Your task to perform on an android device: check android version Image 0: 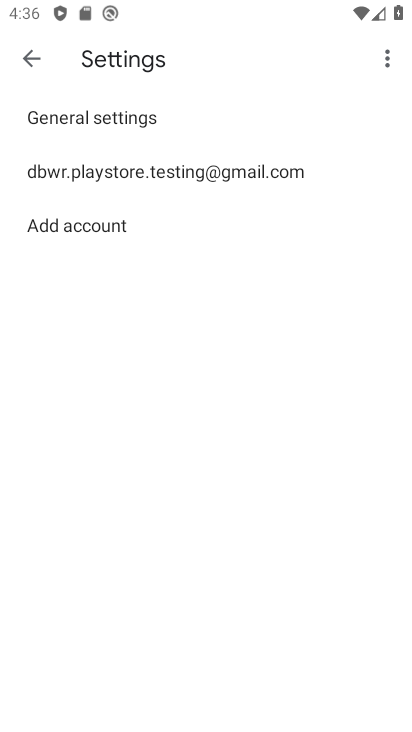
Step 0: press home button
Your task to perform on an android device: check android version Image 1: 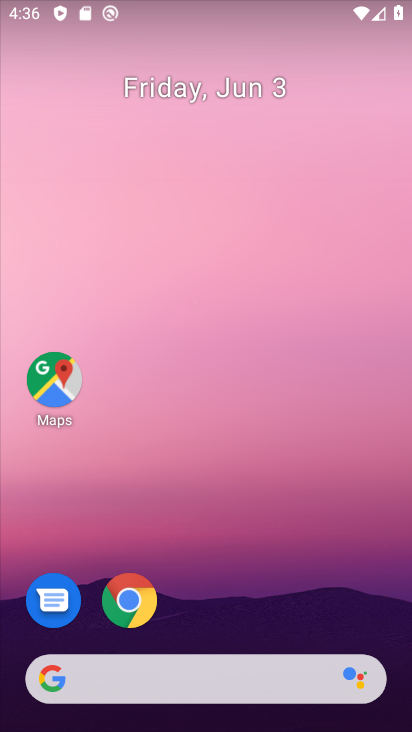
Step 1: drag from (210, 623) to (294, 173)
Your task to perform on an android device: check android version Image 2: 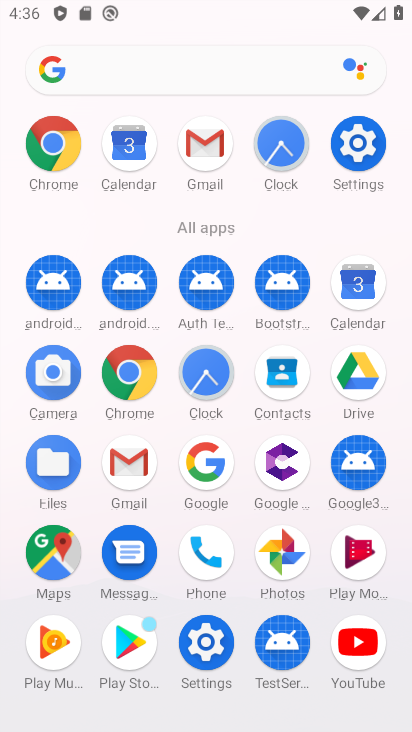
Step 2: click (215, 633)
Your task to perform on an android device: check android version Image 3: 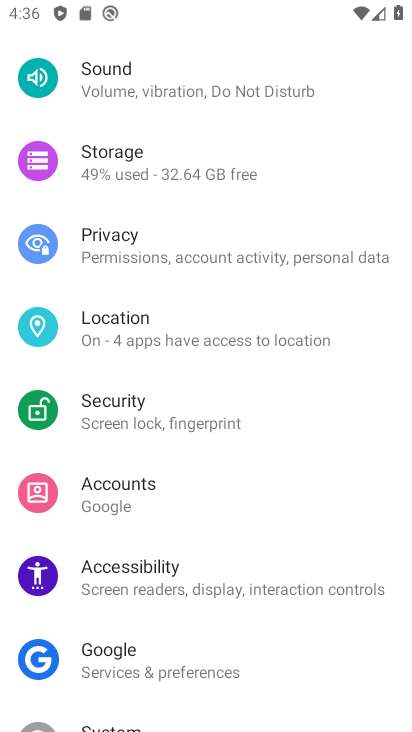
Step 3: drag from (183, 506) to (191, 241)
Your task to perform on an android device: check android version Image 4: 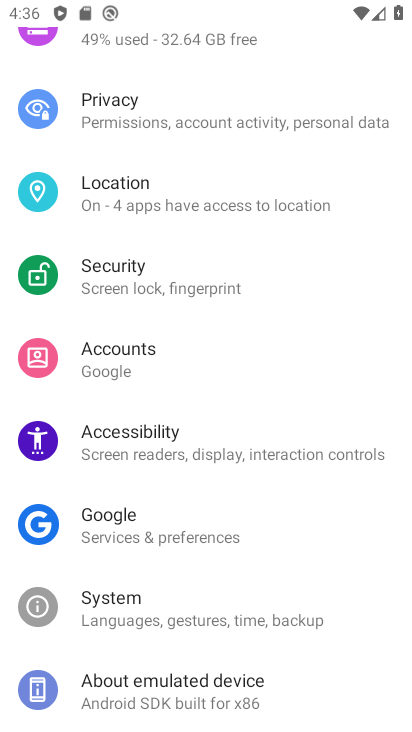
Step 4: click (149, 699)
Your task to perform on an android device: check android version Image 5: 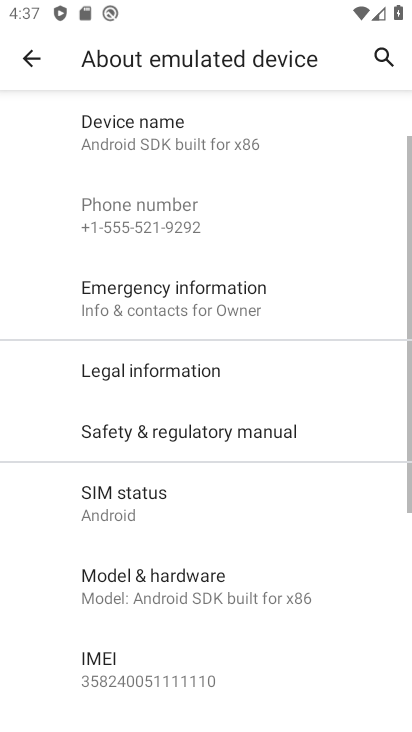
Step 5: drag from (159, 508) to (182, 351)
Your task to perform on an android device: check android version Image 6: 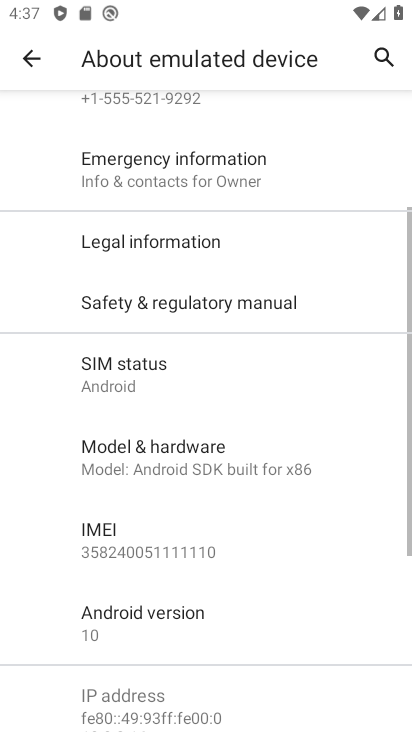
Step 6: click (140, 635)
Your task to perform on an android device: check android version Image 7: 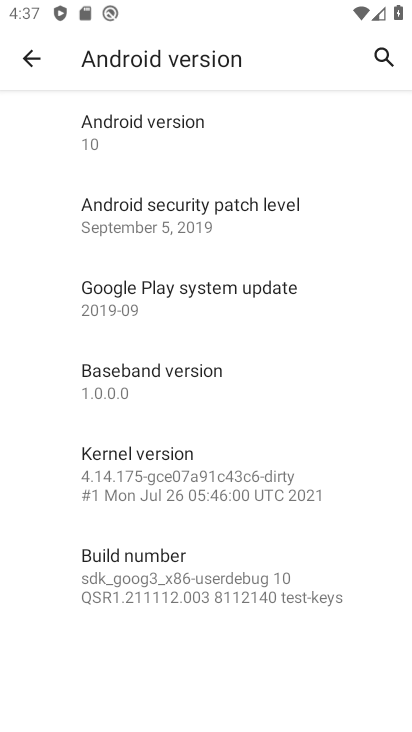
Step 7: task complete